Your task to perform on an android device: Open Android settings Image 0: 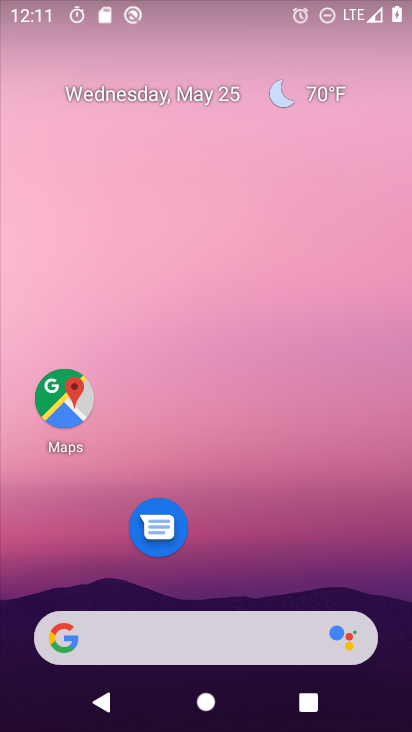
Step 0: drag from (234, 546) to (235, 84)
Your task to perform on an android device: Open Android settings Image 1: 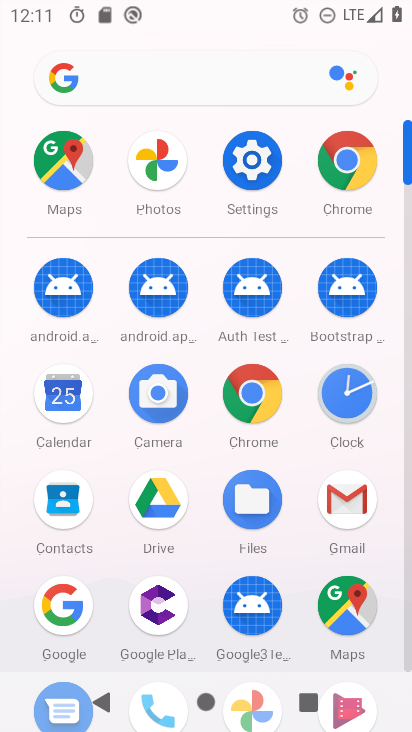
Step 1: click (251, 158)
Your task to perform on an android device: Open Android settings Image 2: 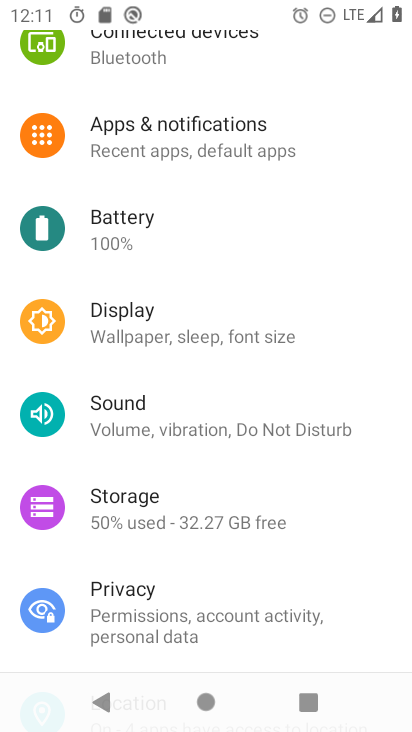
Step 2: task complete